Your task to perform on an android device: turn on javascript in the chrome app Image 0: 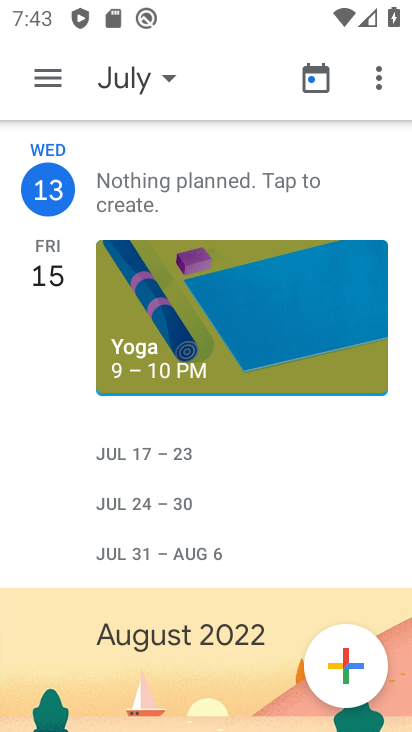
Step 0: press back button
Your task to perform on an android device: turn on javascript in the chrome app Image 1: 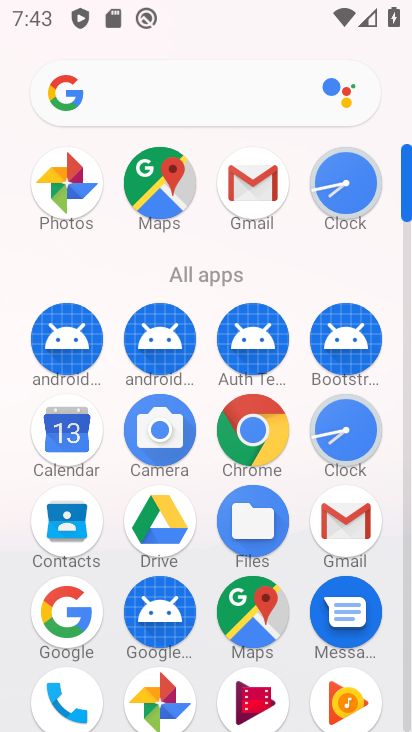
Step 1: click (270, 445)
Your task to perform on an android device: turn on javascript in the chrome app Image 2: 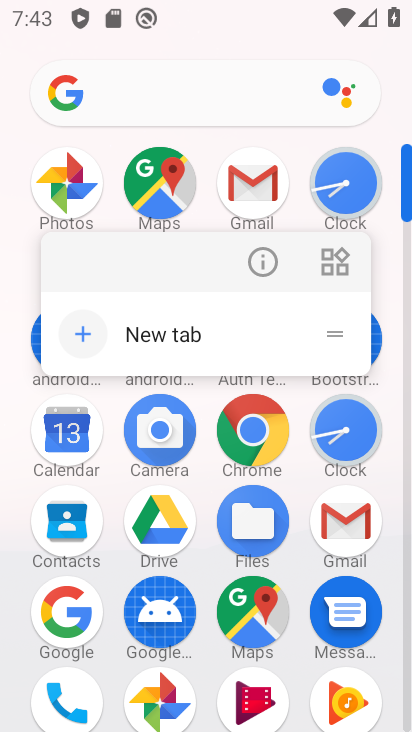
Step 2: click (243, 403)
Your task to perform on an android device: turn on javascript in the chrome app Image 3: 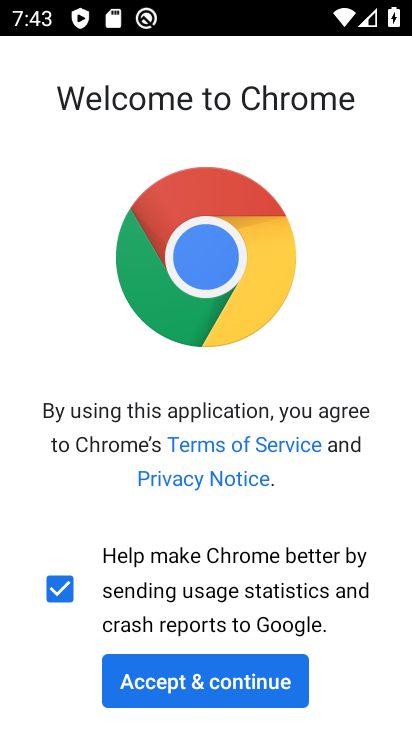
Step 3: click (204, 673)
Your task to perform on an android device: turn on javascript in the chrome app Image 4: 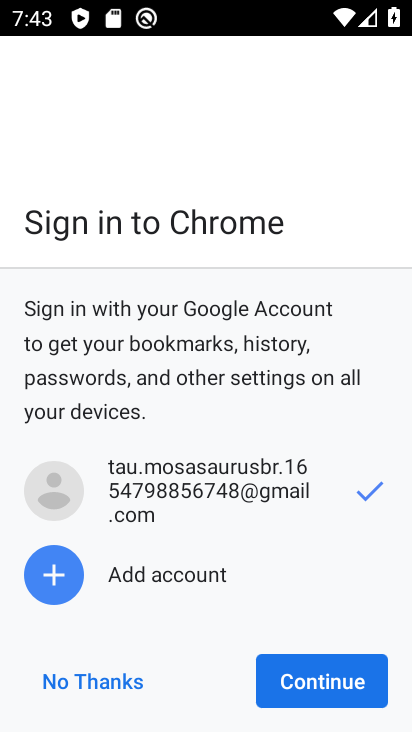
Step 4: click (339, 683)
Your task to perform on an android device: turn on javascript in the chrome app Image 5: 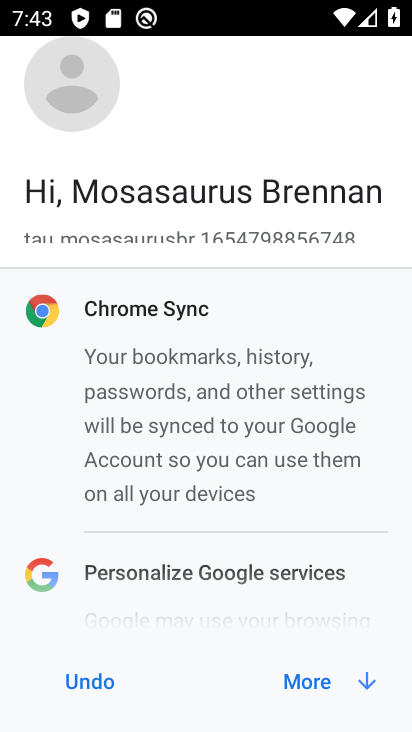
Step 5: click (339, 683)
Your task to perform on an android device: turn on javascript in the chrome app Image 6: 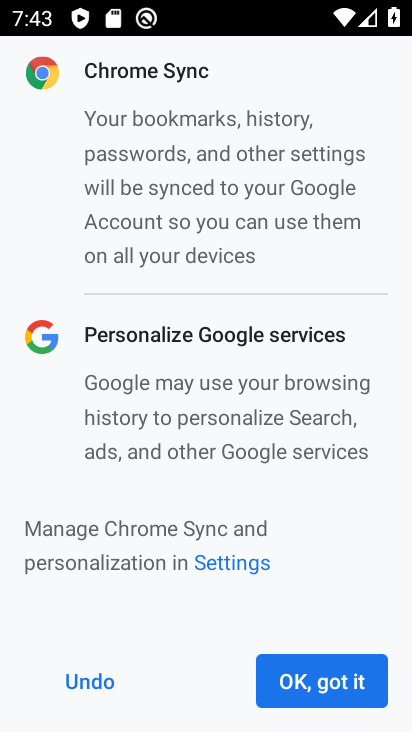
Step 6: click (339, 683)
Your task to perform on an android device: turn on javascript in the chrome app Image 7: 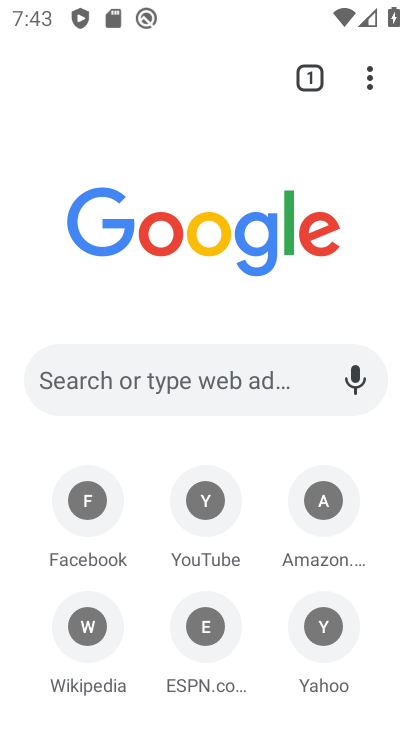
Step 7: drag from (373, 70) to (110, 634)
Your task to perform on an android device: turn on javascript in the chrome app Image 8: 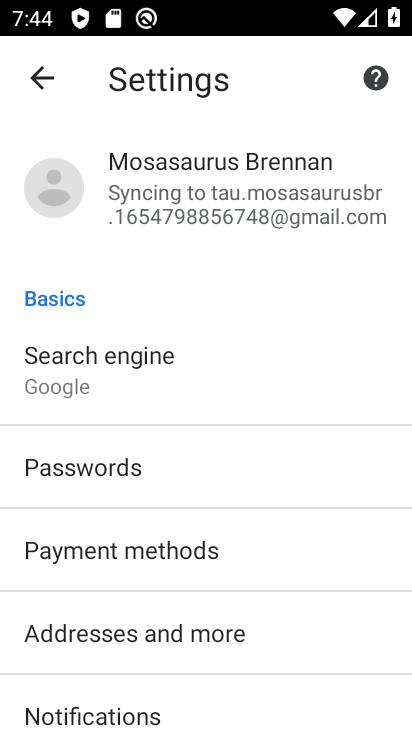
Step 8: drag from (112, 655) to (191, 98)
Your task to perform on an android device: turn on javascript in the chrome app Image 9: 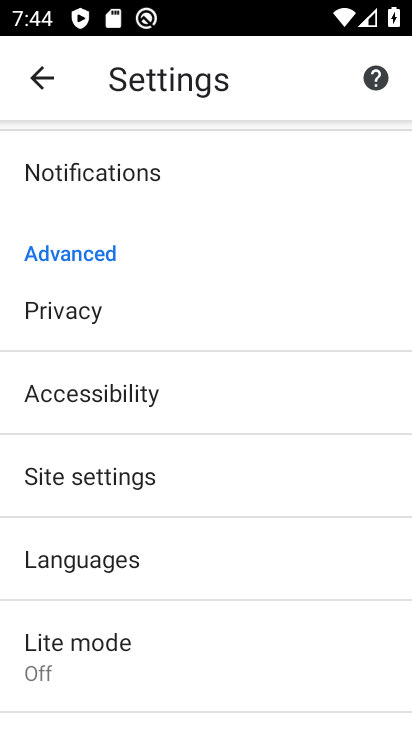
Step 9: click (165, 477)
Your task to perform on an android device: turn on javascript in the chrome app Image 10: 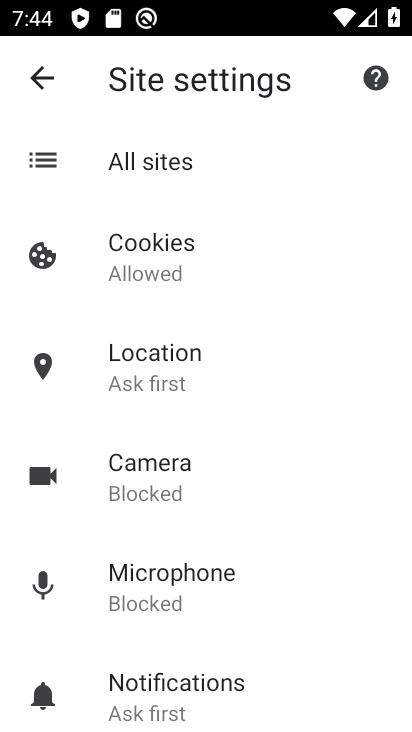
Step 10: drag from (190, 690) to (281, 68)
Your task to perform on an android device: turn on javascript in the chrome app Image 11: 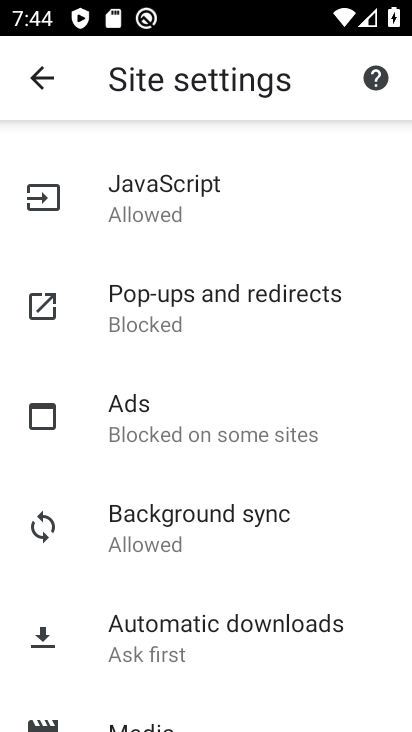
Step 11: click (164, 191)
Your task to perform on an android device: turn on javascript in the chrome app Image 12: 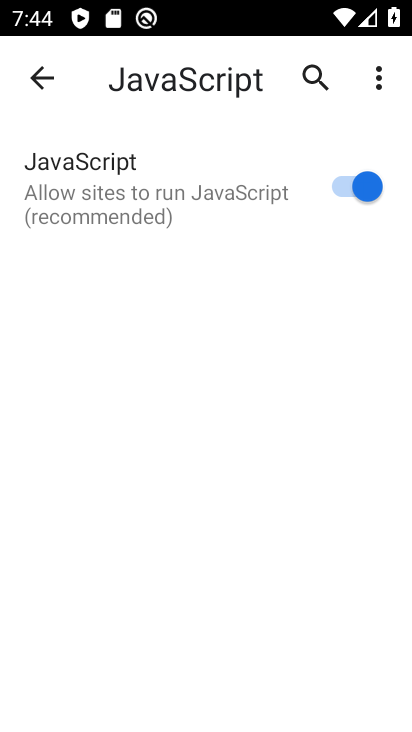
Step 12: task complete